Your task to perform on an android device: Go to Yahoo.com Image 0: 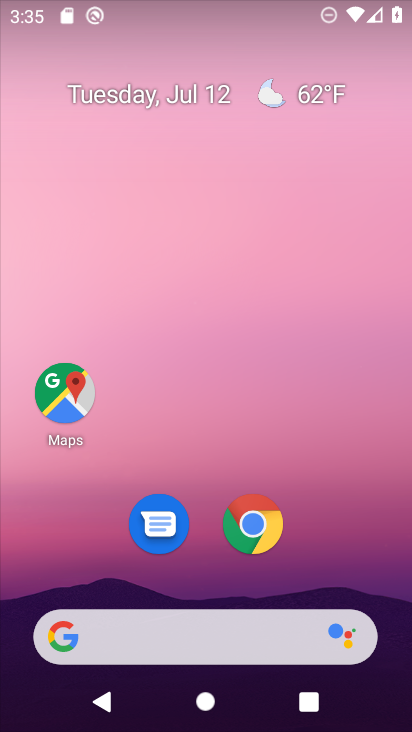
Step 0: click (237, 634)
Your task to perform on an android device: Go to Yahoo.com Image 1: 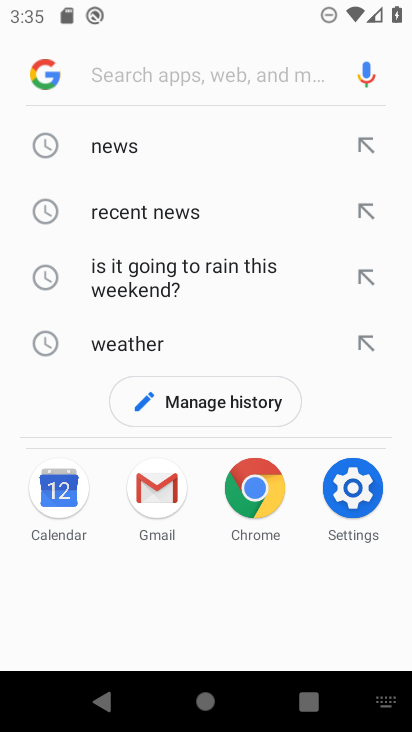
Step 1: type "yahoo.com"
Your task to perform on an android device: Go to Yahoo.com Image 2: 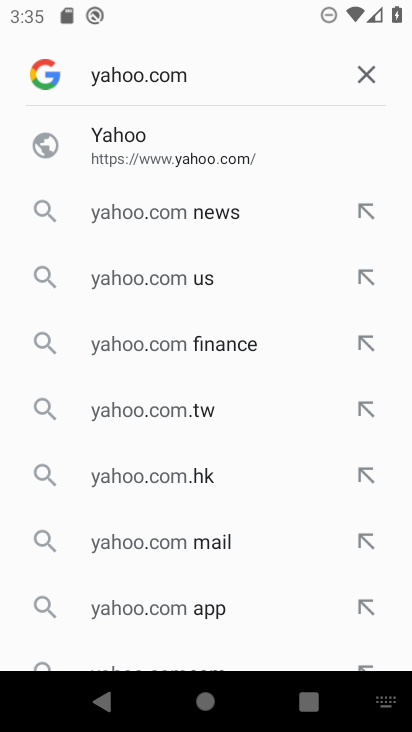
Step 2: click (136, 147)
Your task to perform on an android device: Go to Yahoo.com Image 3: 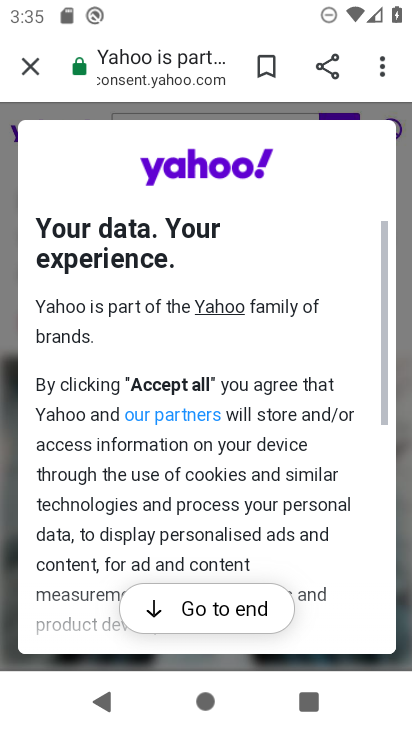
Step 3: click (226, 615)
Your task to perform on an android device: Go to Yahoo.com Image 4: 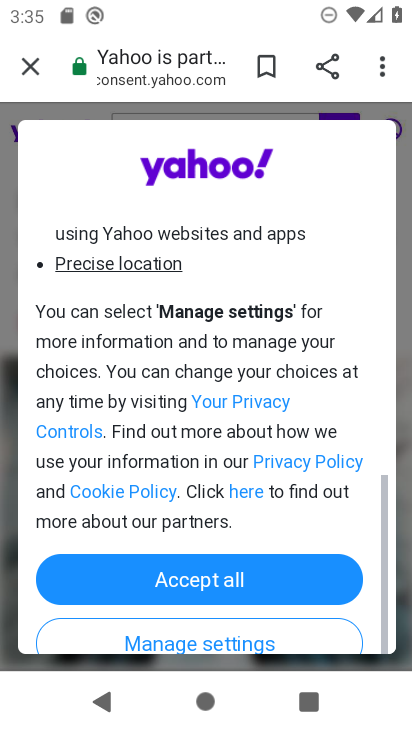
Step 4: click (245, 577)
Your task to perform on an android device: Go to Yahoo.com Image 5: 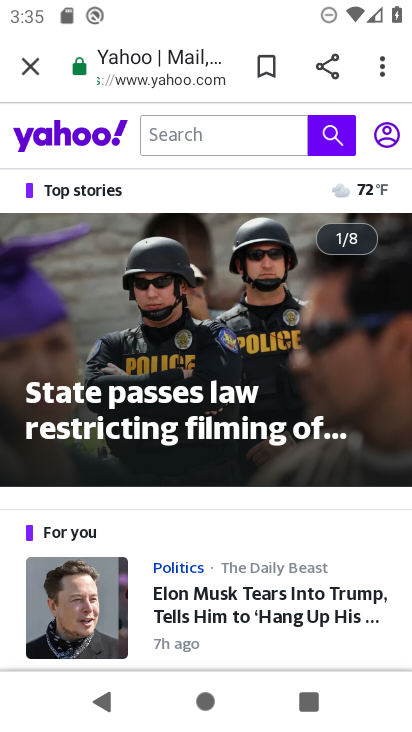
Step 5: click (243, 413)
Your task to perform on an android device: Go to Yahoo.com Image 6: 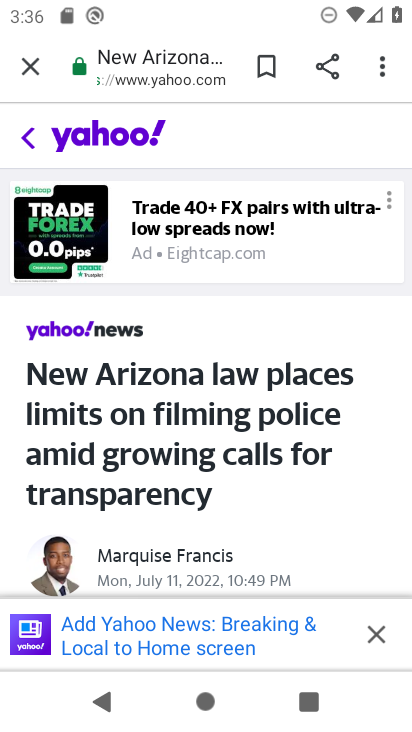
Step 6: task complete